Your task to perform on an android device: toggle notifications settings in the gmail app Image 0: 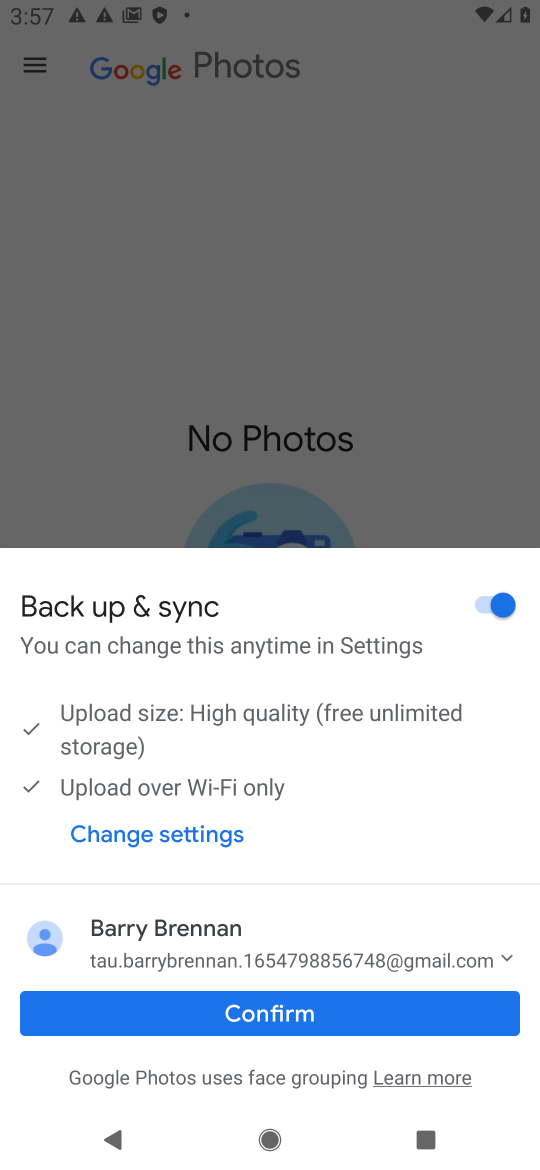
Step 0: press home button
Your task to perform on an android device: toggle notifications settings in the gmail app Image 1: 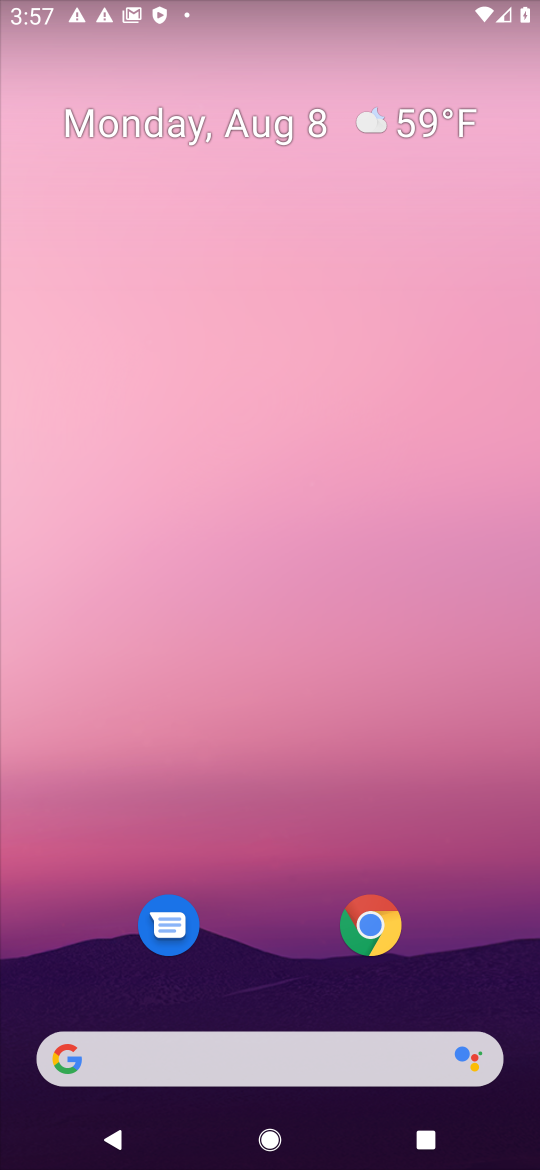
Step 1: drag from (287, 900) to (281, 165)
Your task to perform on an android device: toggle notifications settings in the gmail app Image 2: 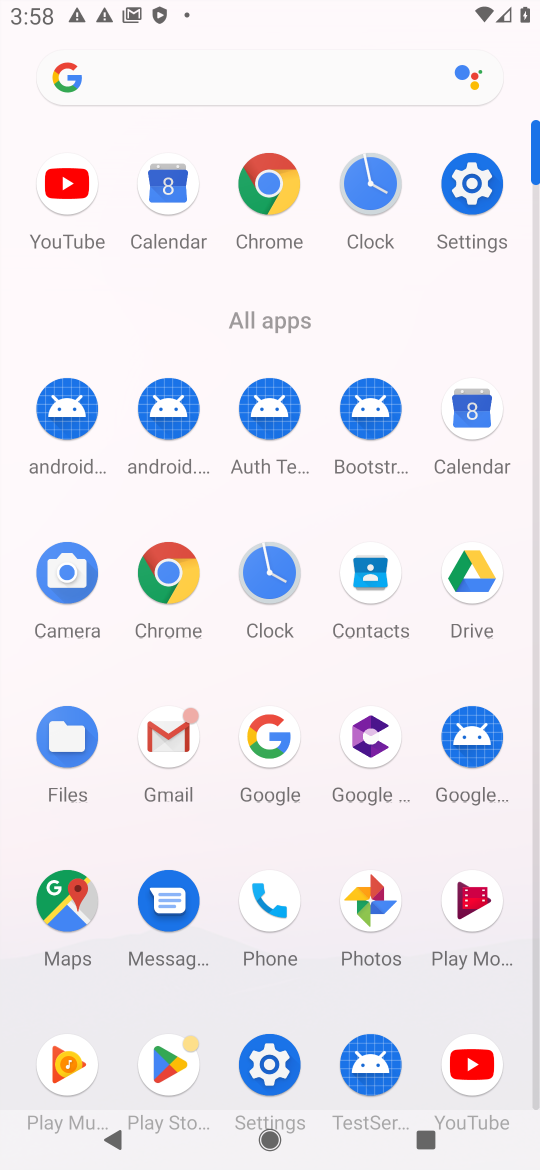
Step 2: click (171, 728)
Your task to perform on an android device: toggle notifications settings in the gmail app Image 3: 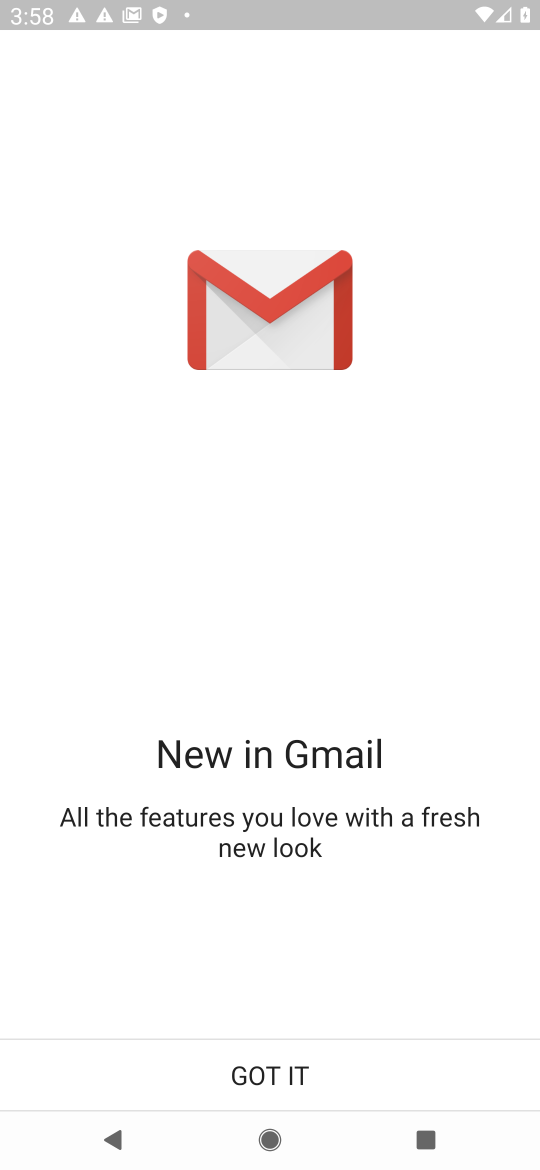
Step 3: click (254, 1078)
Your task to perform on an android device: toggle notifications settings in the gmail app Image 4: 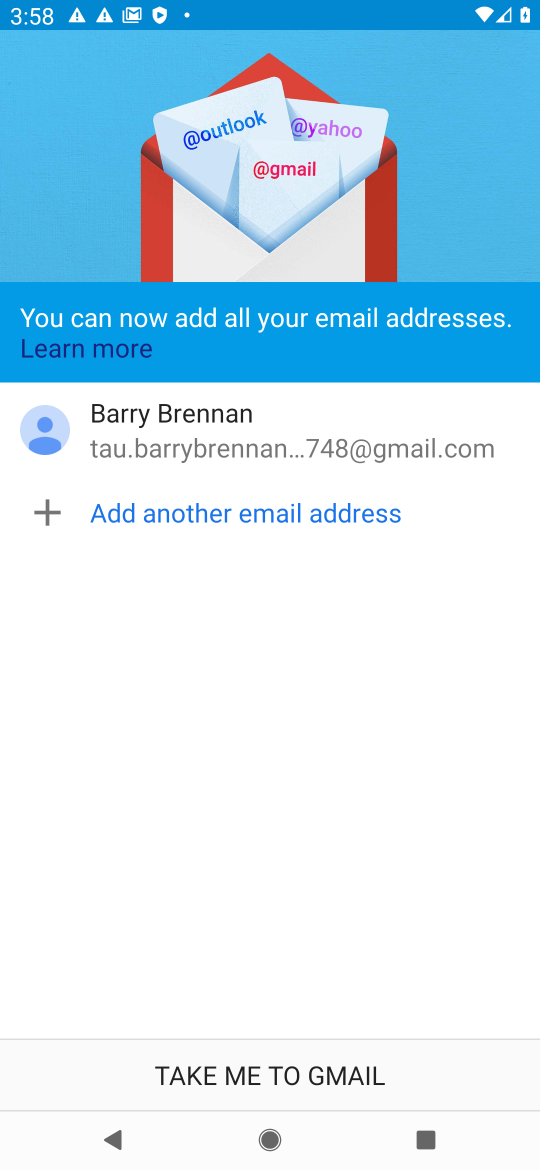
Step 4: click (254, 1078)
Your task to perform on an android device: toggle notifications settings in the gmail app Image 5: 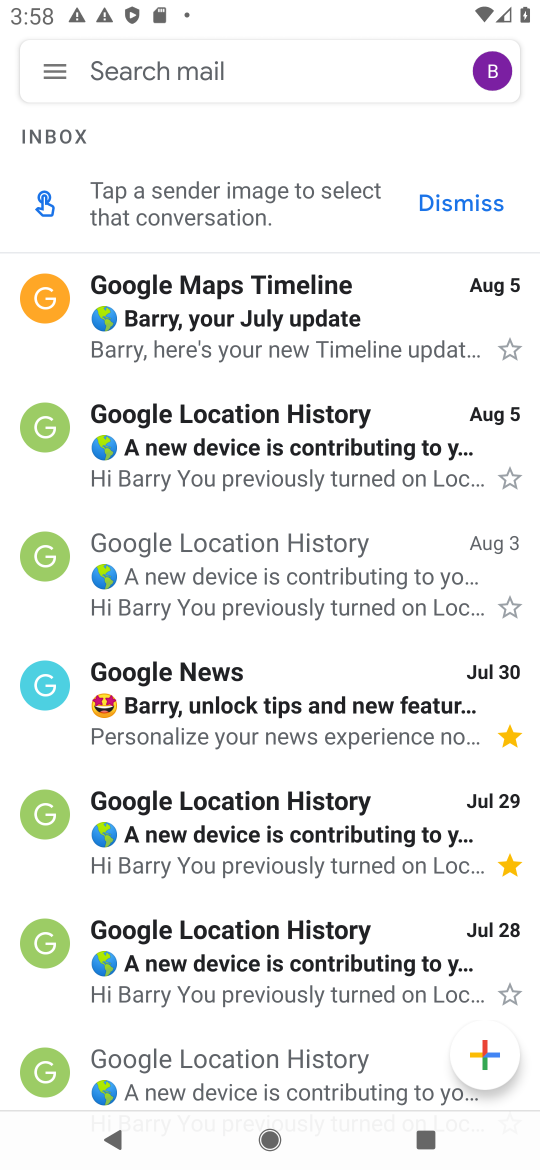
Step 5: click (66, 66)
Your task to perform on an android device: toggle notifications settings in the gmail app Image 6: 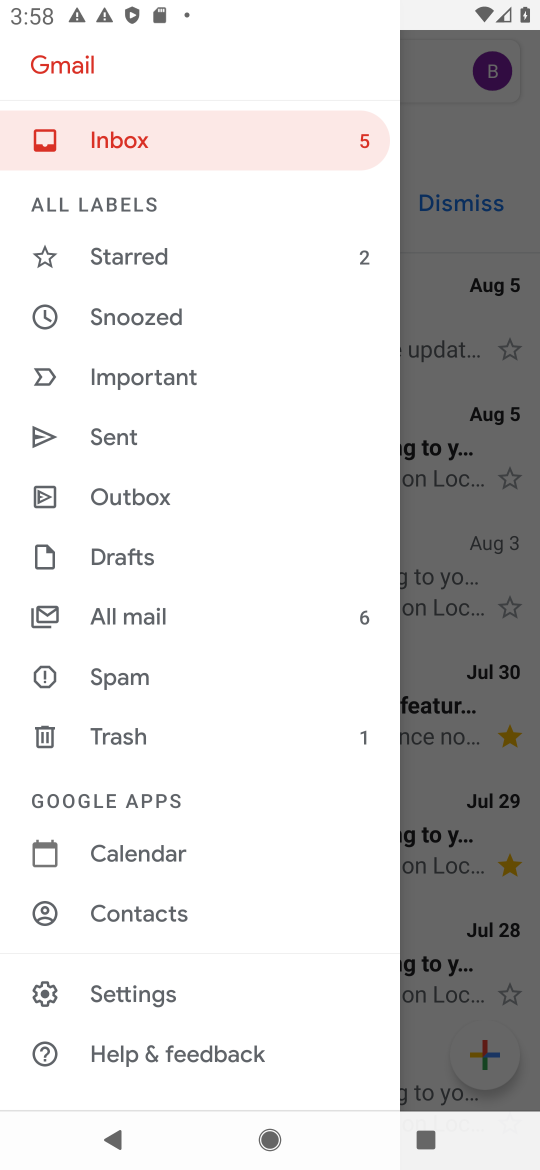
Step 6: click (138, 996)
Your task to perform on an android device: toggle notifications settings in the gmail app Image 7: 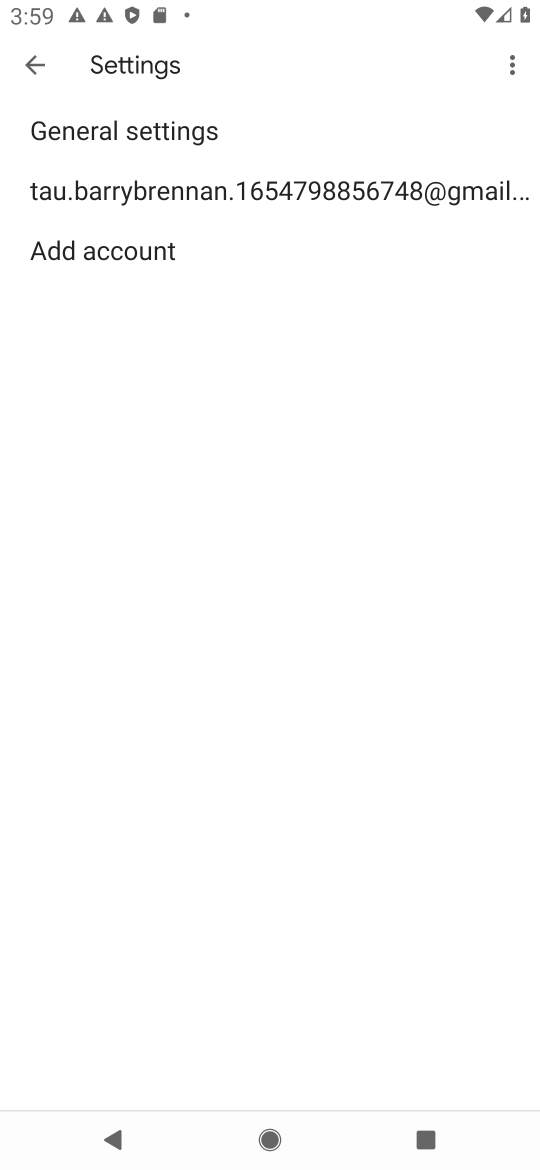
Step 7: click (286, 190)
Your task to perform on an android device: toggle notifications settings in the gmail app Image 8: 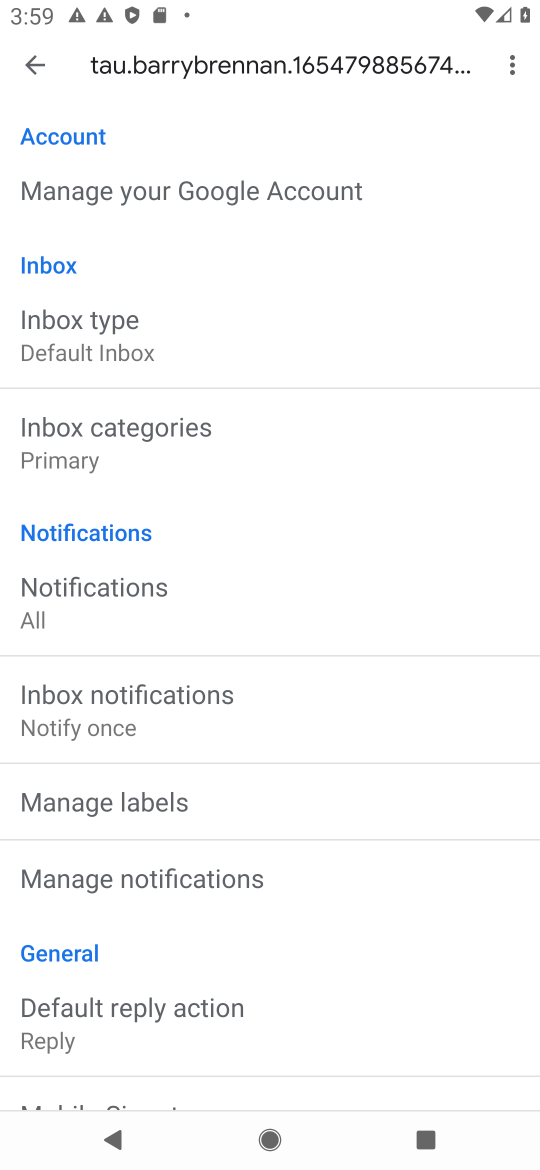
Step 8: drag from (313, 413) to (194, 1022)
Your task to perform on an android device: toggle notifications settings in the gmail app Image 9: 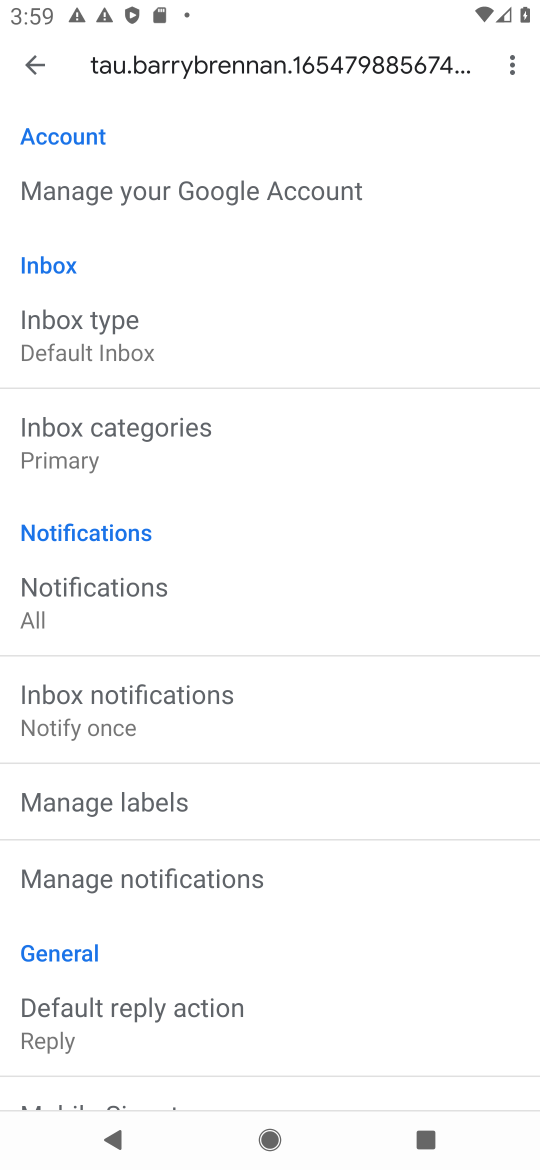
Step 9: click (101, 585)
Your task to perform on an android device: toggle notifications settings in the gmail app Image 10: 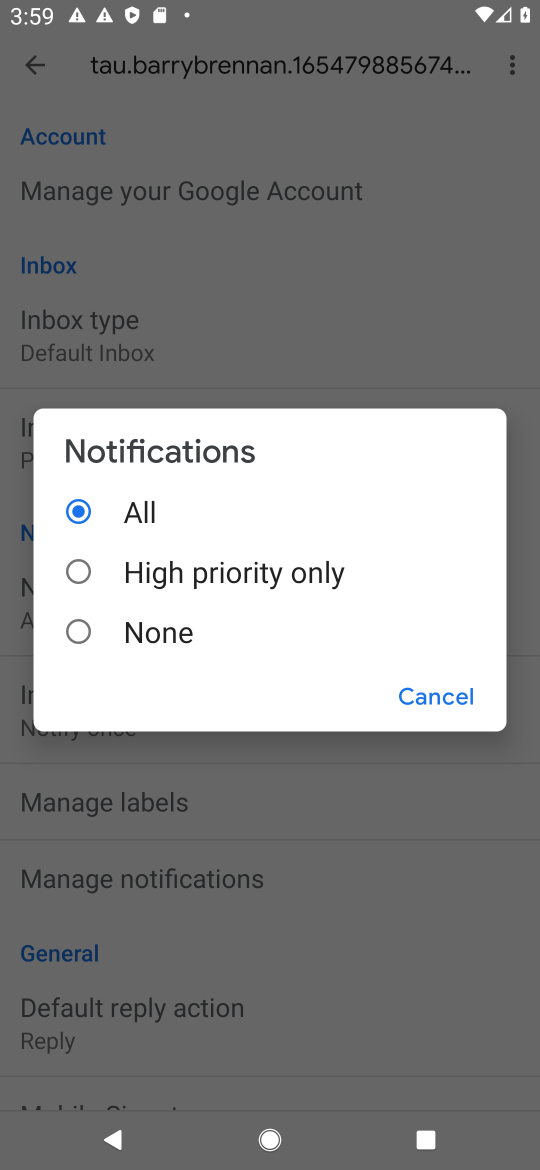
Step 10: click (63, 568)
Your task to perform on an android device: toggle notifications settings in the gmail app Image 11: 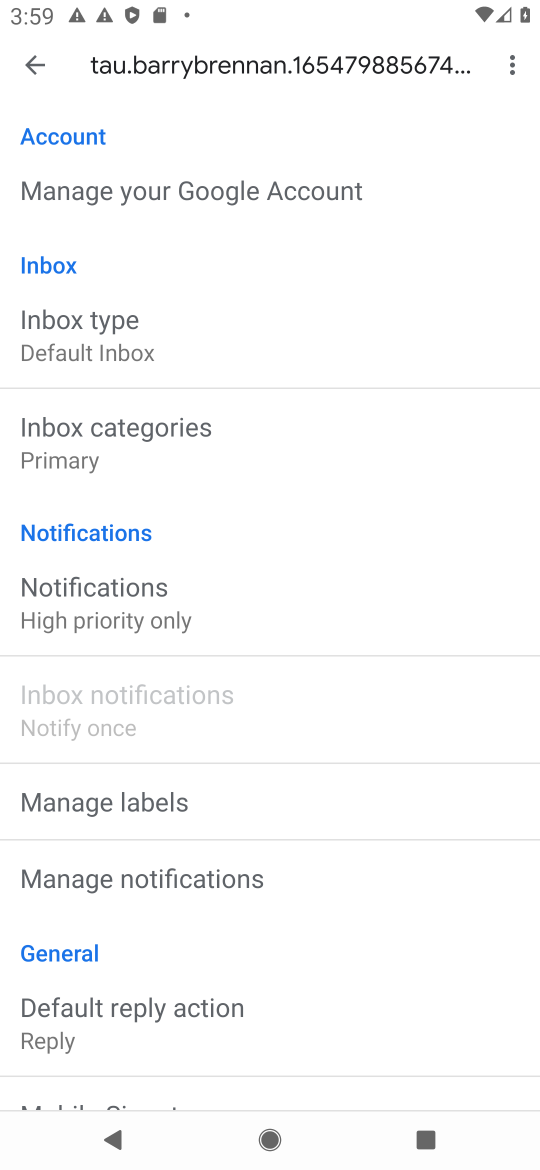
Step 11: task complete